Your task to perform on an android device: When is my next appointment? Image 0: 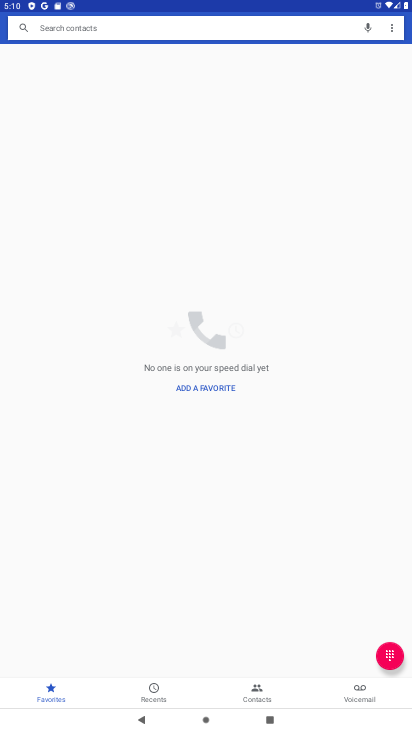
Step 0: press home button
Your task to perform on an android device: When is my next appointment? Image 1: 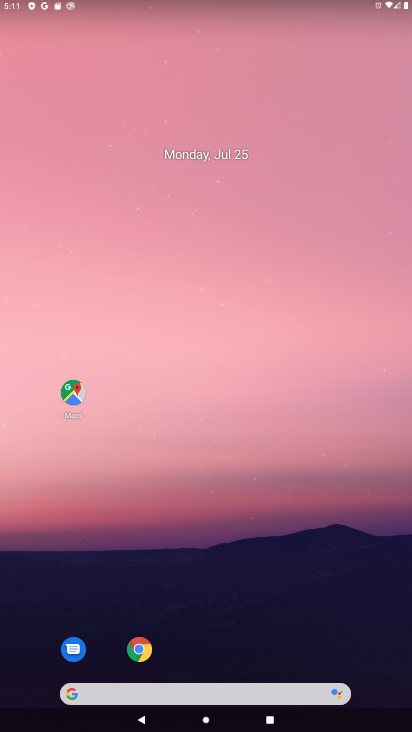
Step 1: drag from (275, 696) to (322, 6)
Your task to perform on an android device: When is my next appointment? Image 2: 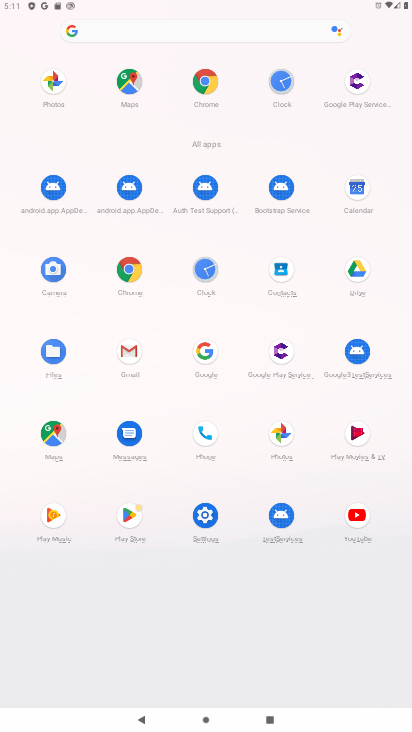
Step 2: click (353, 193)
Your task to perform on an android device: When is my next appointment? Image 3: 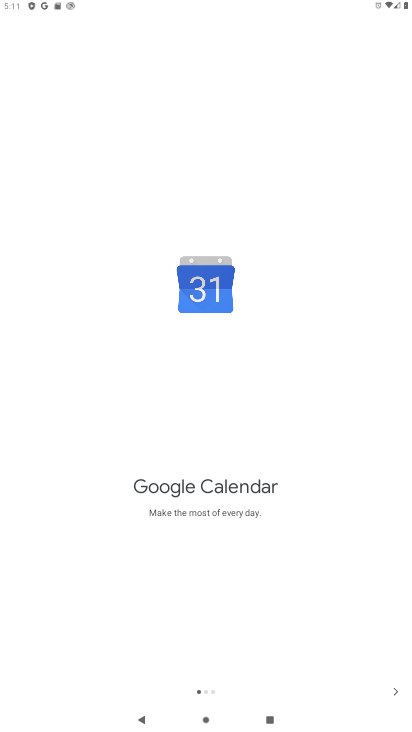
Step 3: click (394, 684)
Your task to perform on an android device: When is my next appointment? Image 4: 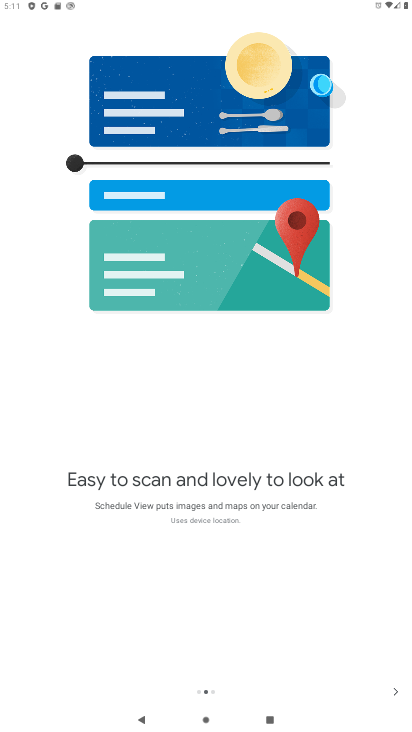
Step 4: click (395, 684)
Your task to perform on an android device: When is my next appointment? Image 5: 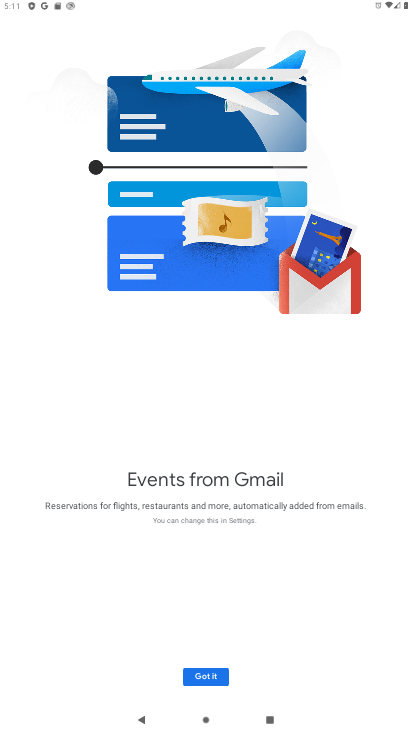
Step 5: click (216, 682)
Your task to perform on an android device: When is my next appointment? Image 6: 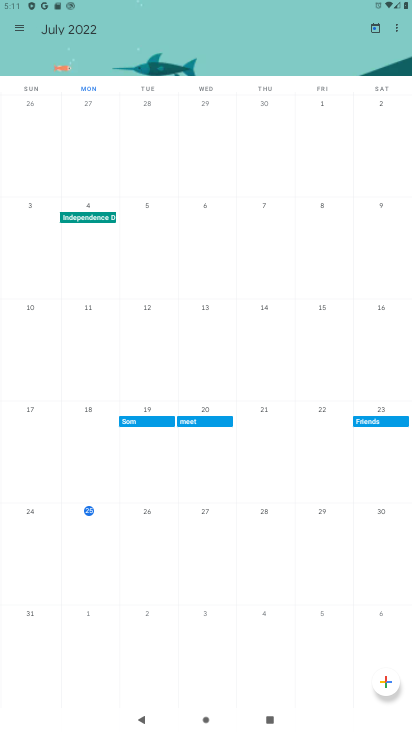
Step 6: click (146, 512)
Your task to perform on an android device: When is my next appointment? Image 7: 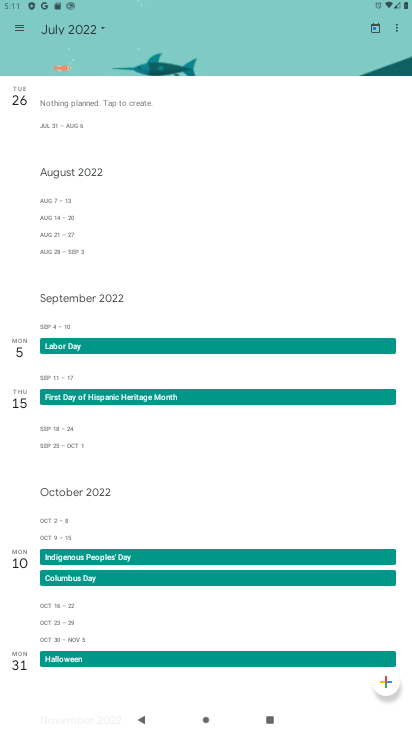
Step 7: task complete